Your task to perform on an android device: Open CNN.com Image 0: 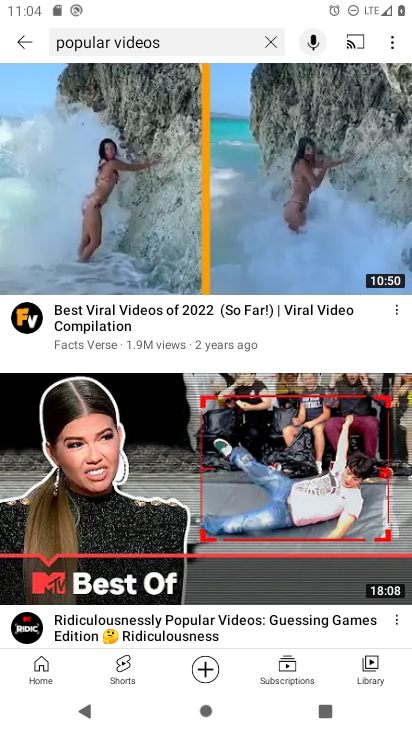
Step 0: press home button
Your task to perform on an android device: Open CNN.com Image 1: 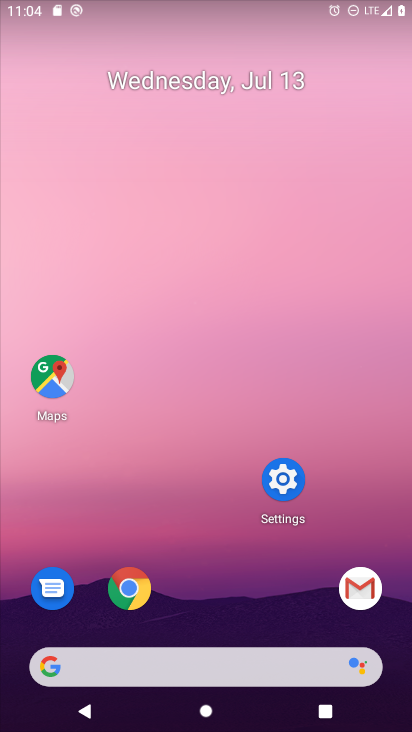
Step 1: click (135, 584)
Your task to perform on an android device: Open CNN.com Image 2: 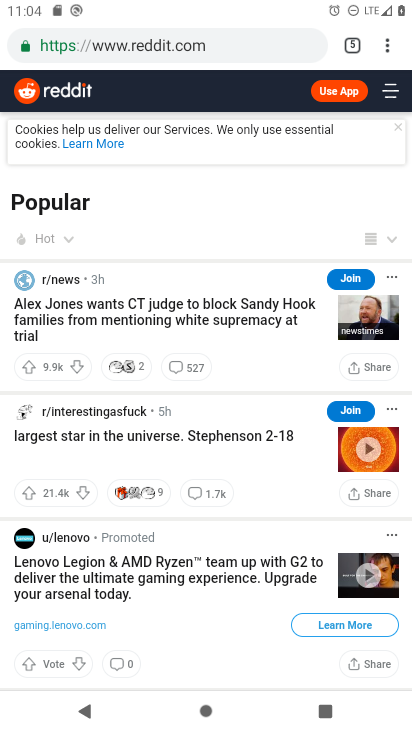
Step 2: click (152, 55)
Your task to perform on an android device: Open CNN.com Image 3: 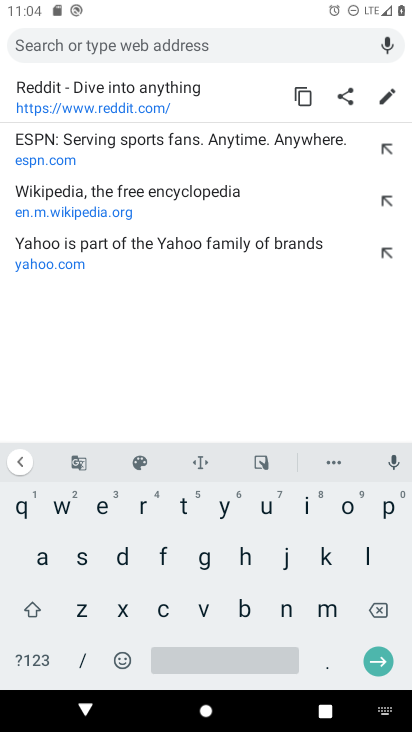
Step 3: click (156, 608)
Your task to perform on an android device: Open CNN.com Image 4: 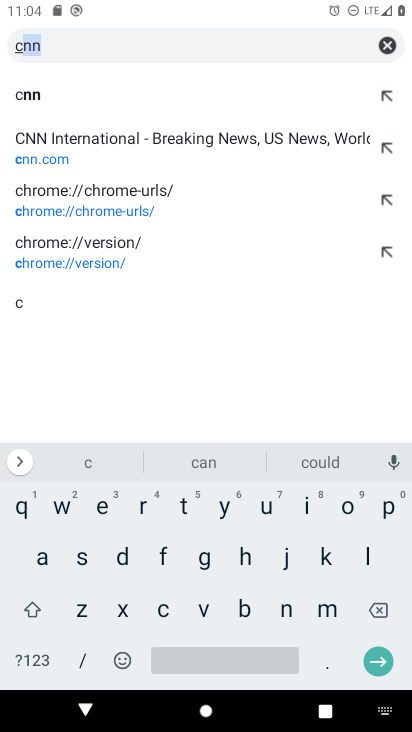
Step 4: click (23, 108)
Your task to perform on an android device: Open CNN.com Image 5: 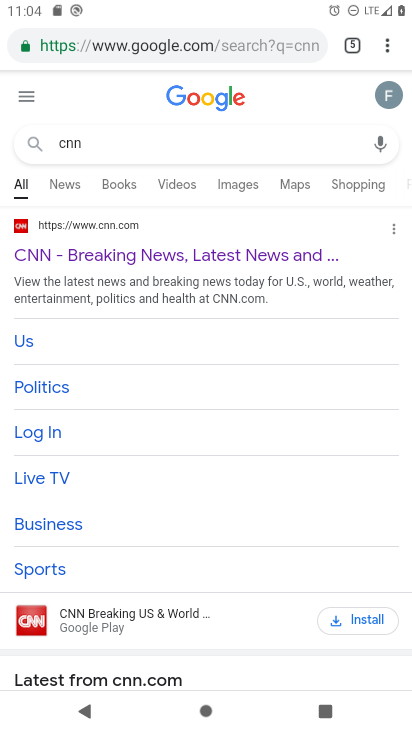
Step 5: click (101, 257)
Your task to perform on an android device: Open CNN.com Image 6: 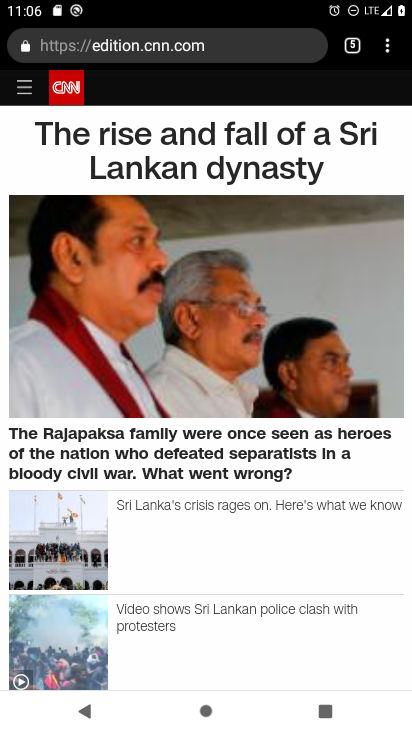
Step 6: task complete